Your task to perform on an android device: Open Google Chrome and open the bookmarks view Image 0: 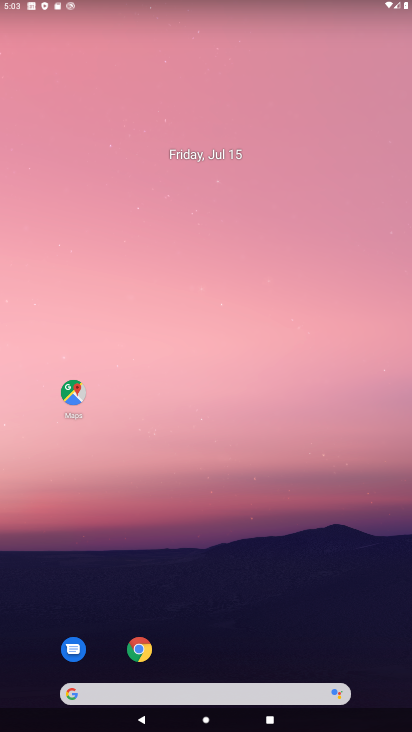
Step 0: click (141, 650)
Your task to perform on an android device: Open Google Chrome and open the bookmarks view Image 1: 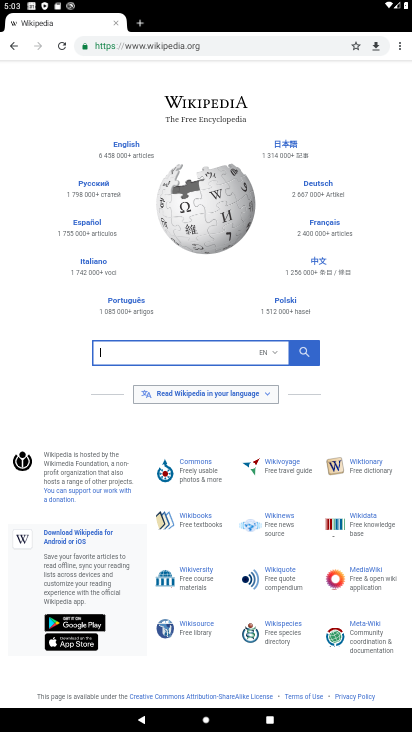
Step 1: click (400, 46)
Your task to perform on an android device: Open Google Chrome and open the bookmarks view Image 2: 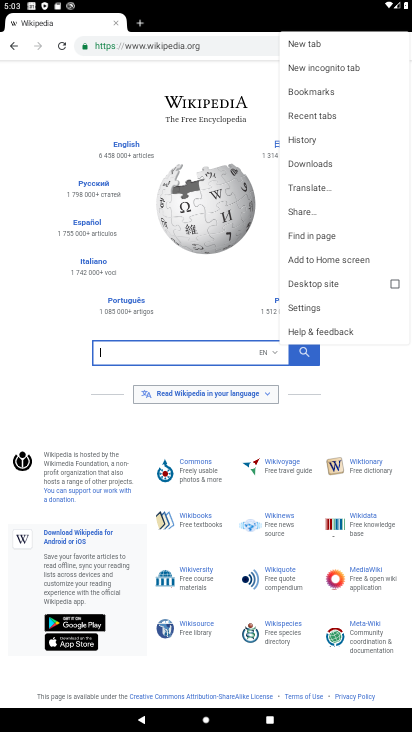
Step 2: click (330, 92)
Your task to perform on an android device: Open Google Chrome and open the bookmarks view Image 3: 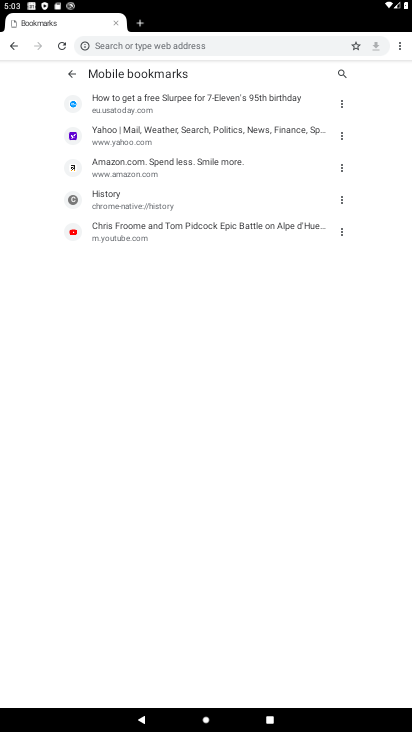
Step 3: task complete